Your task to perform on an android device: Open Amazon Image 0: 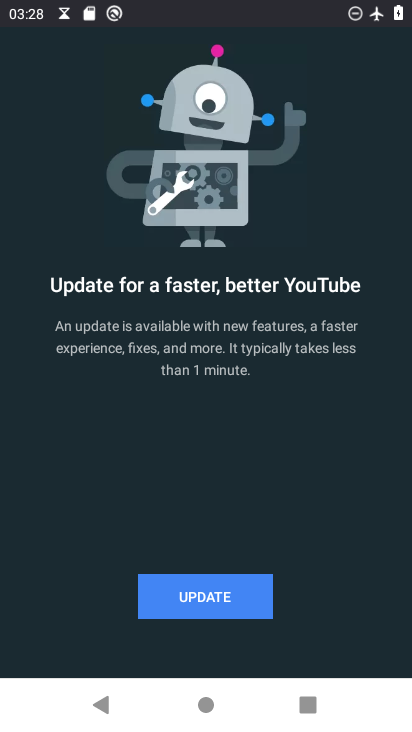
Step 0: press home button
Your task to perform on an android device: Open Amazon Image 1: 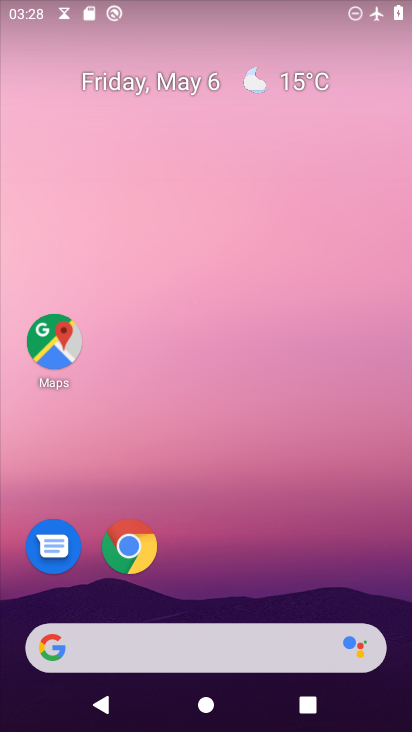
Step 1: click (145, 528)
Your task to perform on an android device: Open Amazon Image 2: 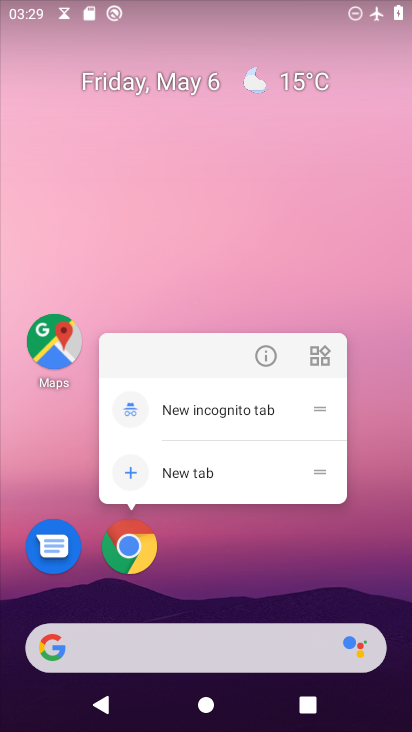
Step 2: click (131, 547)
Your task to perform on an android device: Open Amazon Image 3: 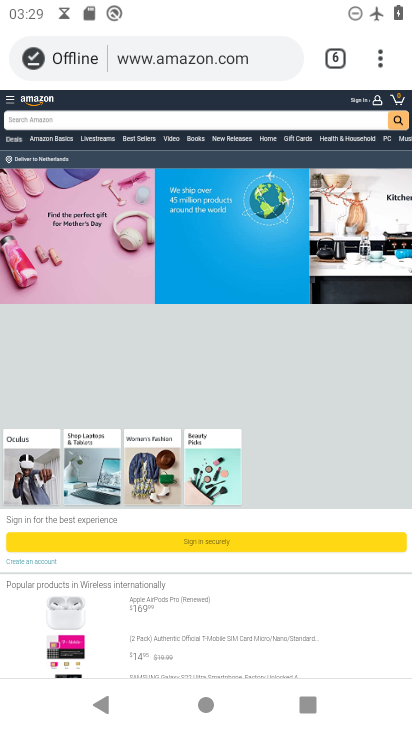
Step 3: task complete